Your task to perform on an android device: Search for sushi restaurants on Maps Image 0: 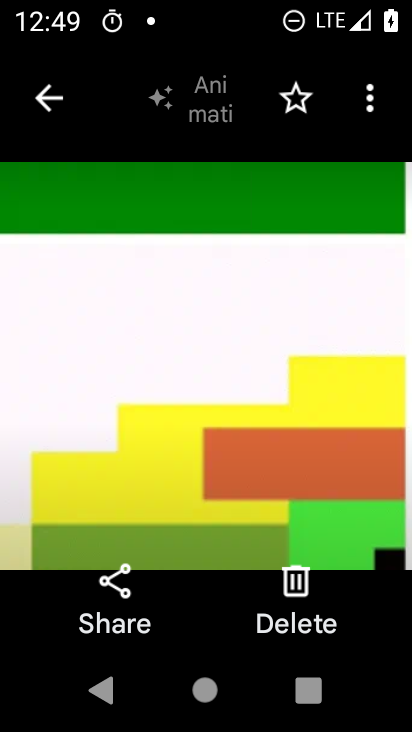
Step 0: drag from (201, 524) to (221, 189)
Your task to perform on an android device: Search for sushi restaurants on Maps Image 1: 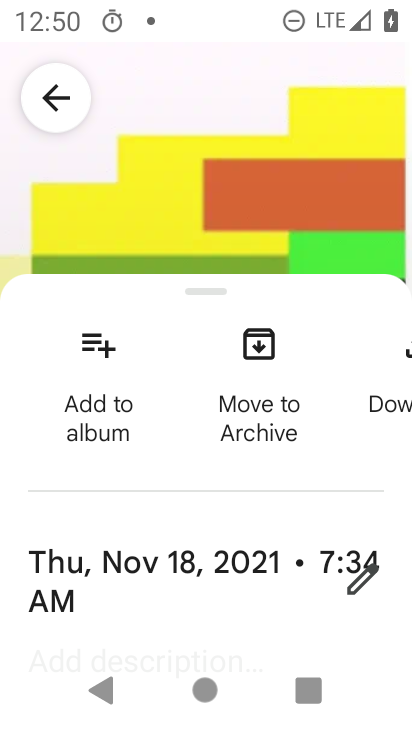
Step 1: drag from (234, 224) to (265, 714)
Your task to perform on an android device: Search for sushi restaurants on Maps Image 2: 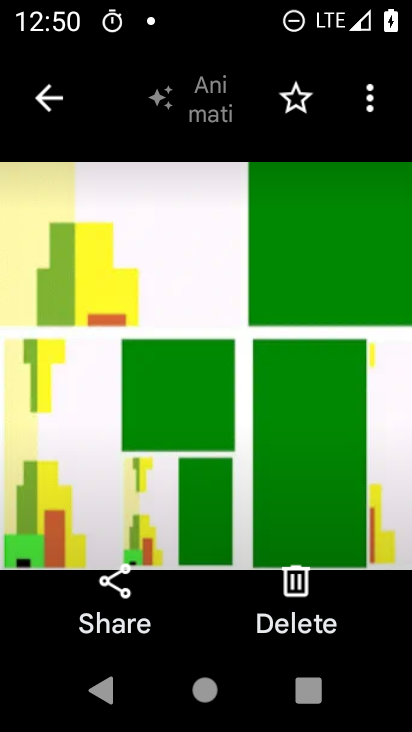
Step 2: press home button
Your task to perform on an android device: Search for sushi restaurants on Maps Image 3: 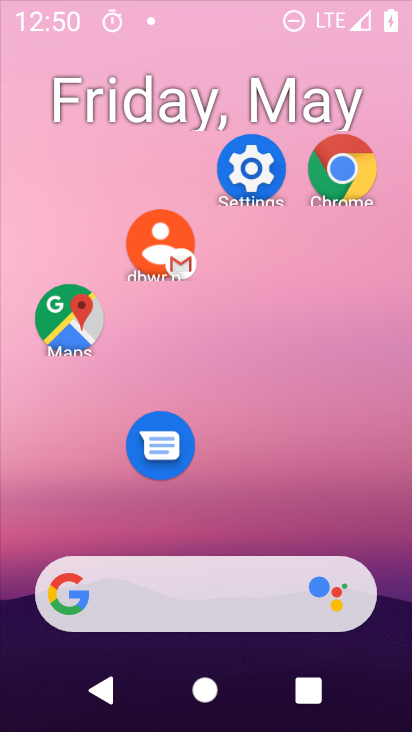
Step 3: drag from (174, 581) to (215, 68)
Your task to perform on an android device: Search for sushi restaurants on Maps Image 4: 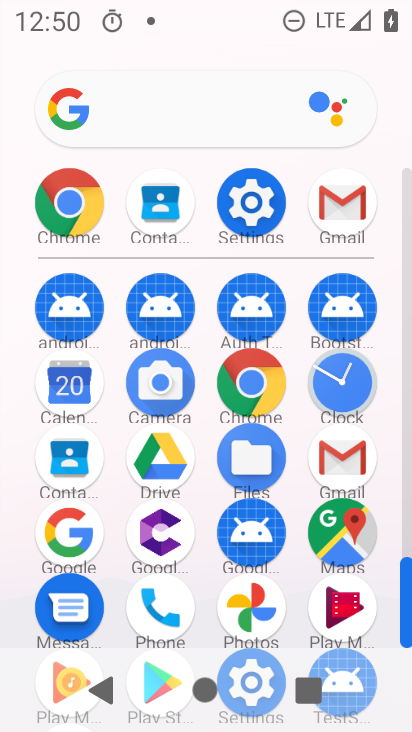
Step 4: click (365, 514)
Your task to perform on an android device: Search for sushi restaurants on Maps Image 5: 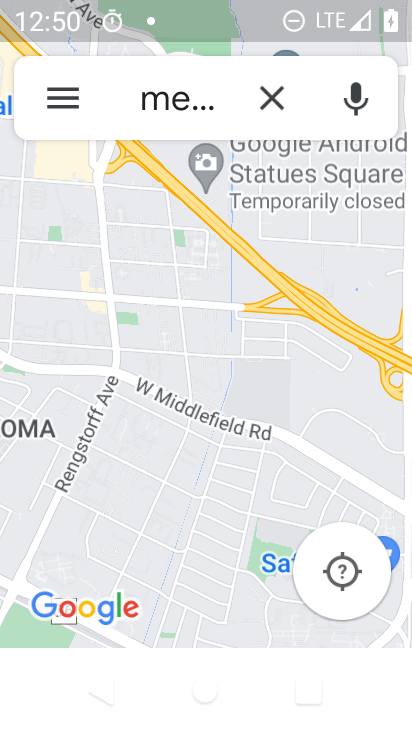
Step 5: click (258, 107)
Your task to perform on an android device: Search for sushi restaurants on Maps Image 6: 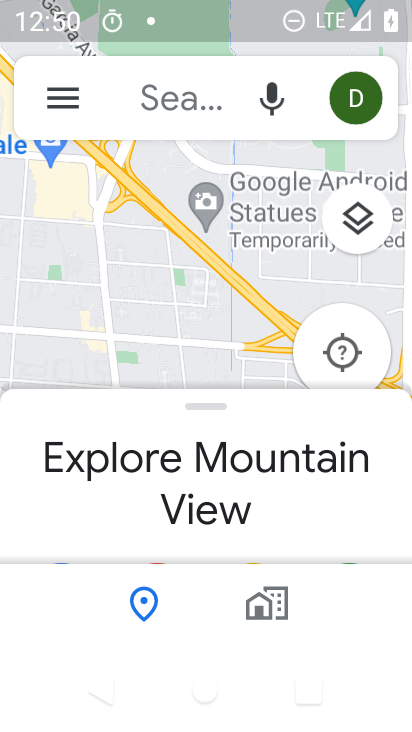
Step 6: click (175, 95)
Your task to perform on an android device: Search for sushi restaurants on Maps Image 7: 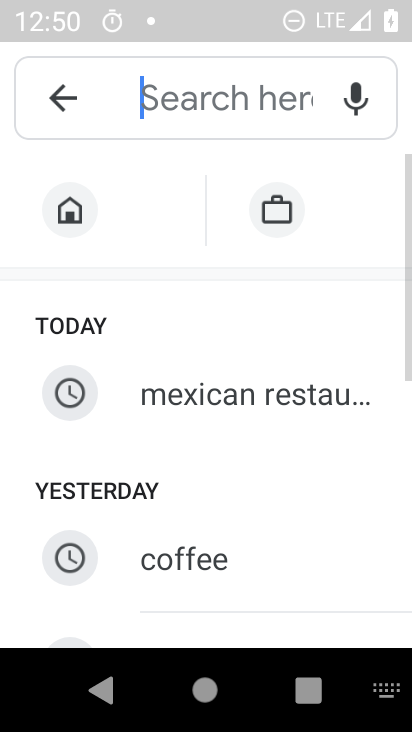
Step 7: drag from (215, 566) to (203, 4)
Your task to perform on an android device: Search for sushi restaurants on Maps Image 8: 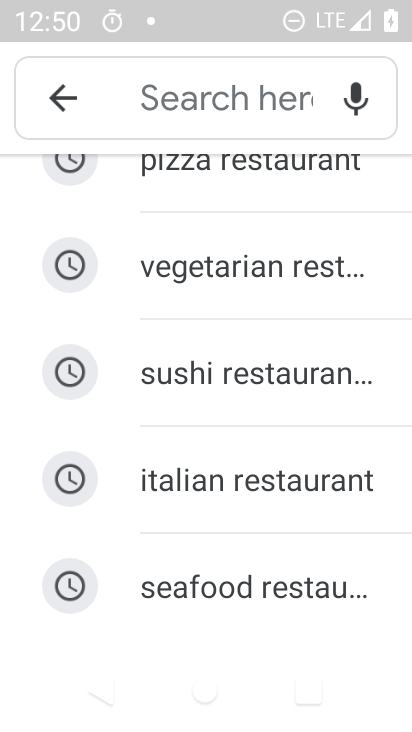
Step 8: click (237, 342)
Your task to perform on an android device: Search for sushi restaurants on Maps Image 9: 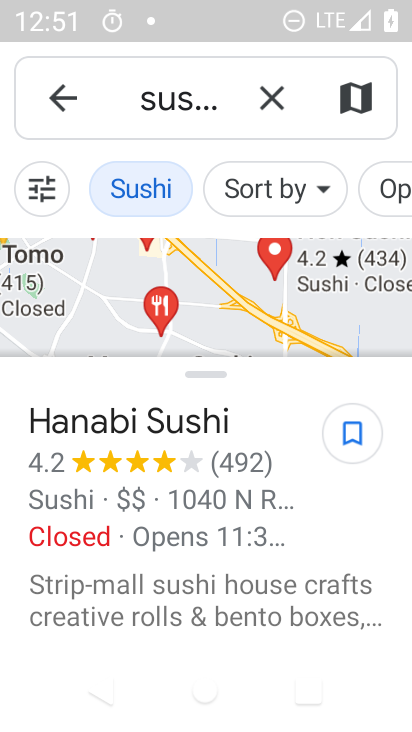
Step 9: task complete